Your task to perform on an android device: Open Amazon Image 0: 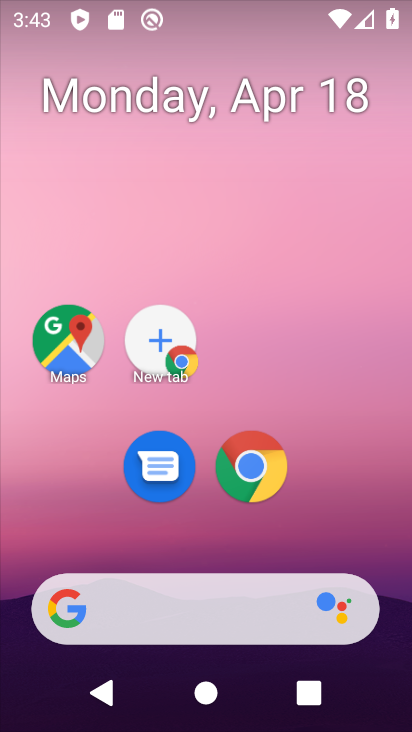
Step 0: drag from (328, 529) to (288, 4)
Your task to perform on an android device: Open Amazon Image 1: 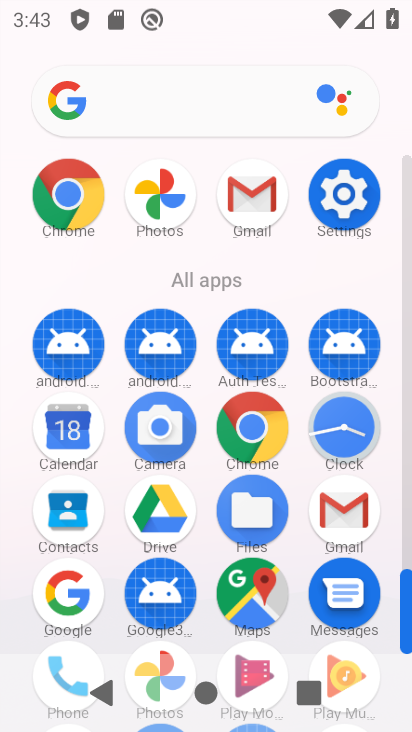
Step 1: drag from (9, 520) to (4, 240)
Your task to perform on an android device: Open Amazon Image 2: 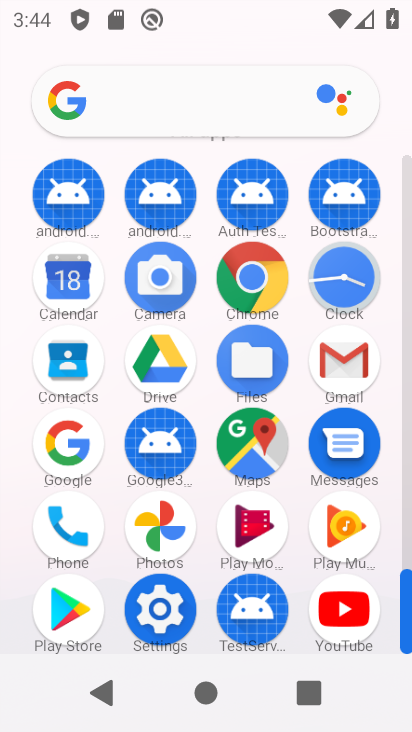
Step 2: click (252, 275)
Your task to perform on an android device: Open Amazon Image 3: 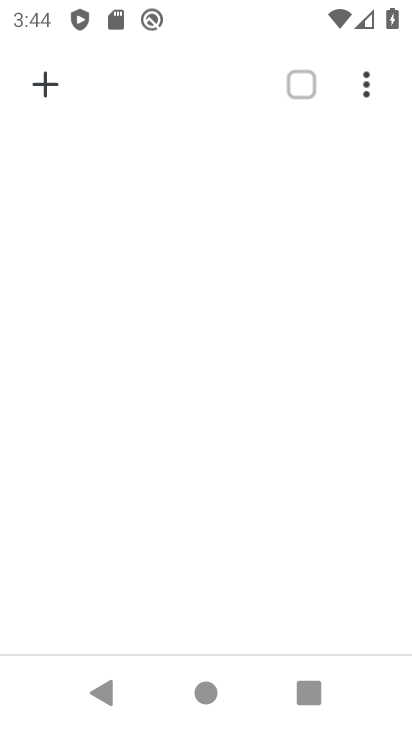
Step 3: click (49, 78)
Your task to perform on an android device: Open Amazon Image 4: 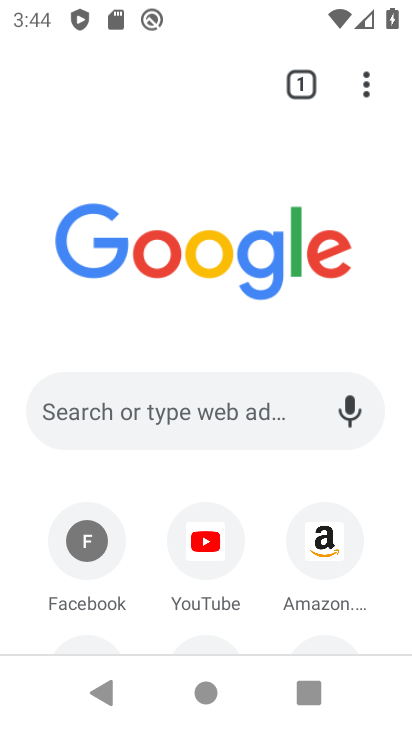
Step 4: click (330, 538)
Your task to perform on an android device: Open Amazon Image 5: 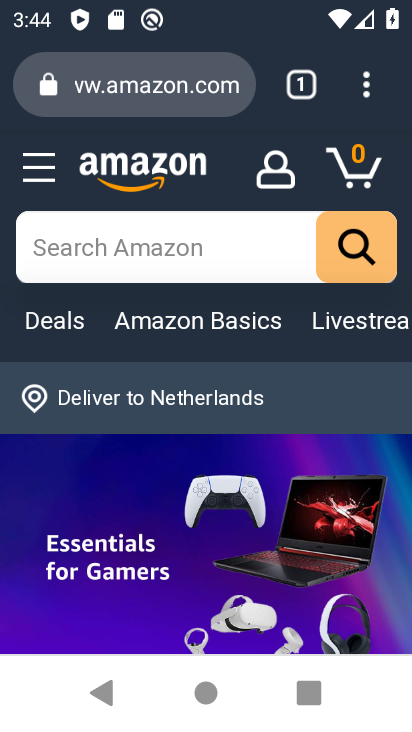
Step 5: task complete